Your task to perform on an android device: View the shopping cart on newegg. Add "razer naga" to the cart on newegg, then select checkout. Image 0: 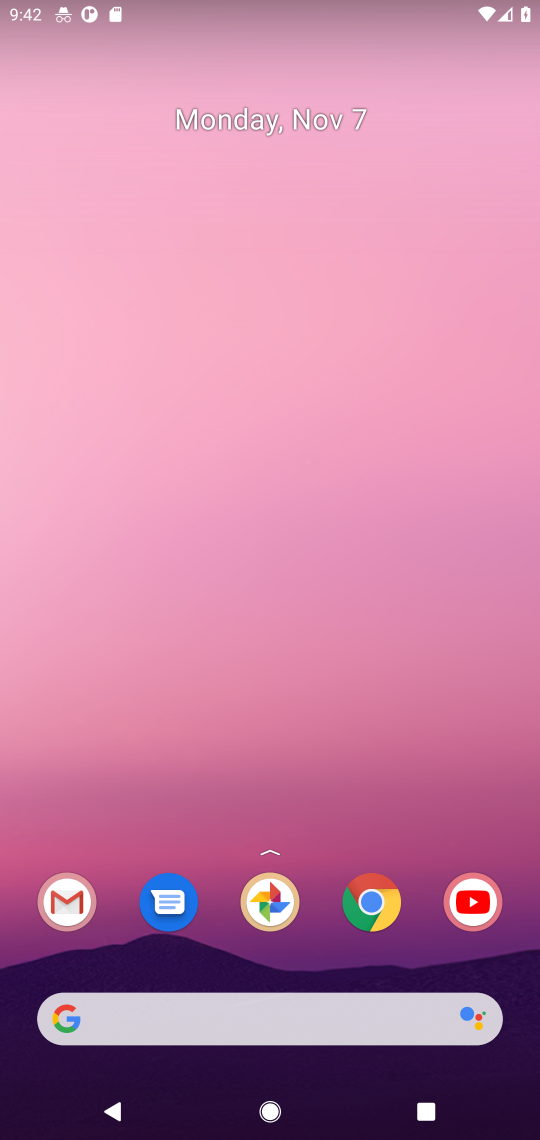
Step 0: click (369, 898)
Your task to perform on an android device: View the shopping cart on newegg. Add "razer naga" to the cart on newegg, then select checkout. Image 1: 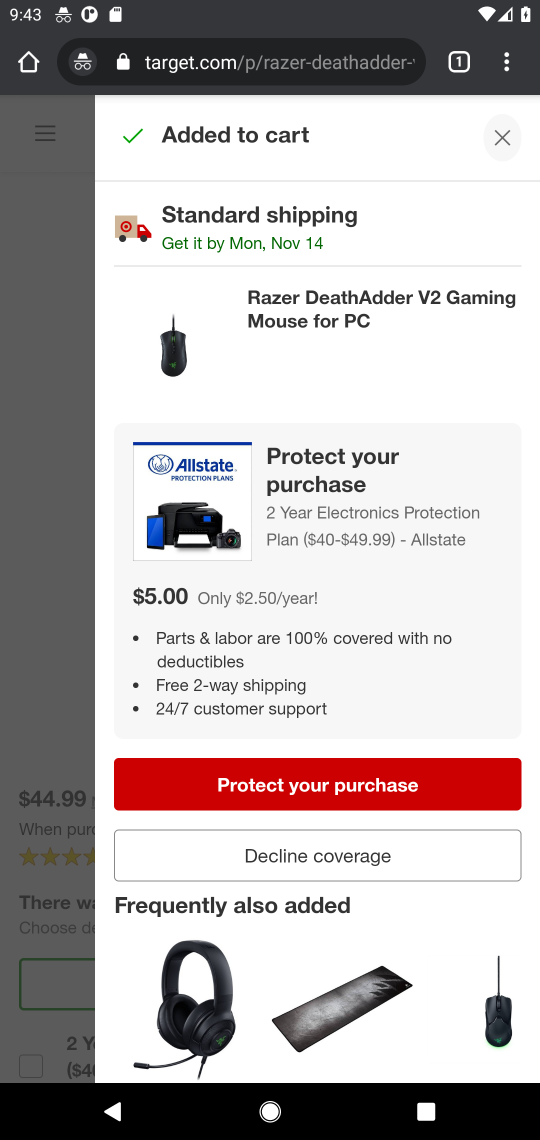
Step 1: click (226, 67)
Your task to perform on an android device: View the shopping cart on newegg. Add "razer naga" to the cart on newegg, then select checkout. Image 2: 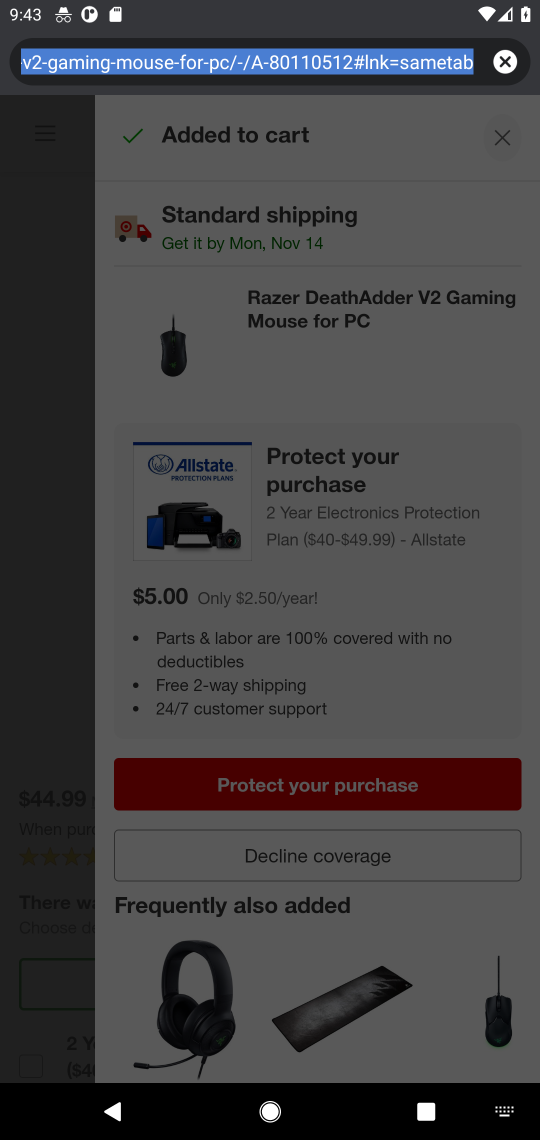
Step 2: type "newegg.com"
Your task to perform on an android device: View the shopping cart on newegg. Add "razer naga" to the cart on newegg, then select checkout. Image 3: 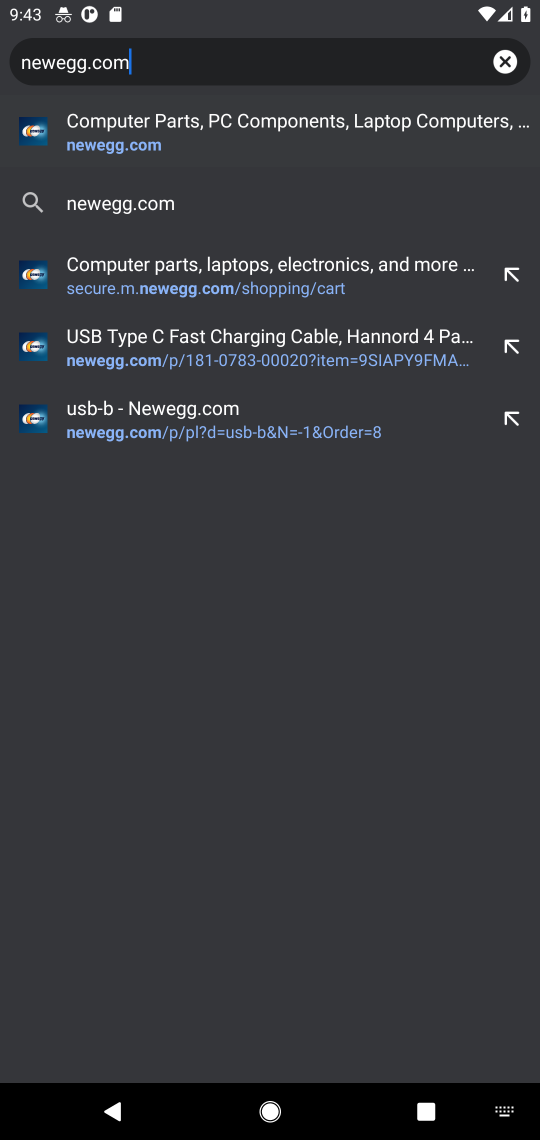
Step 3: click (130, 143)
Your task to perform on an android device: View the shopping cart on newegg. Add "razer naga" to the cart on newegg, then select checkout. Image 4: 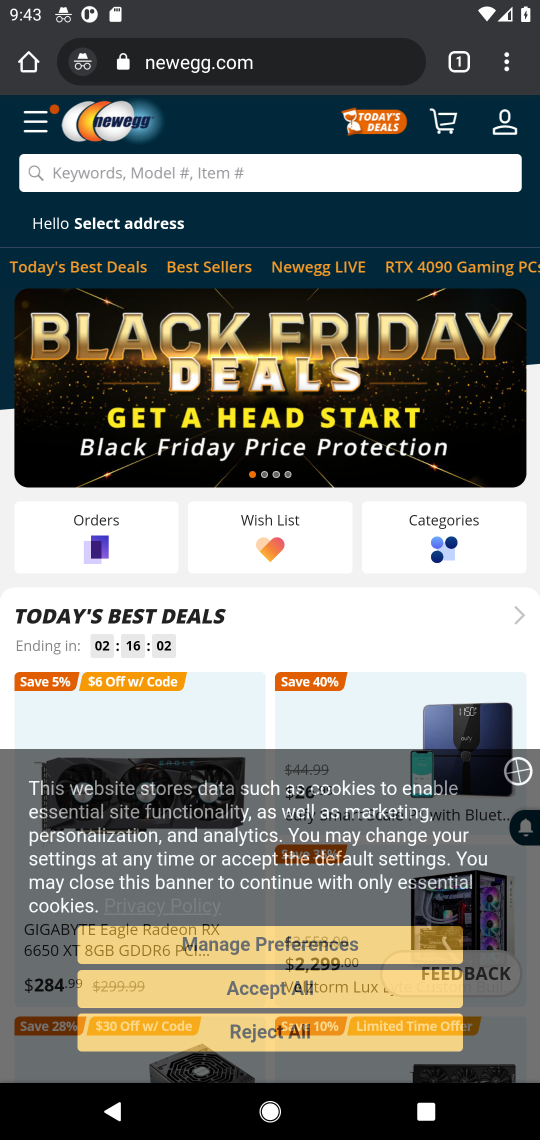
Step 4: click (443, 123)
Your task to perform on an android device: View the shopping cart on newegg. Add "razer naga" to the cart on newegg, then select checkout. Image 5: 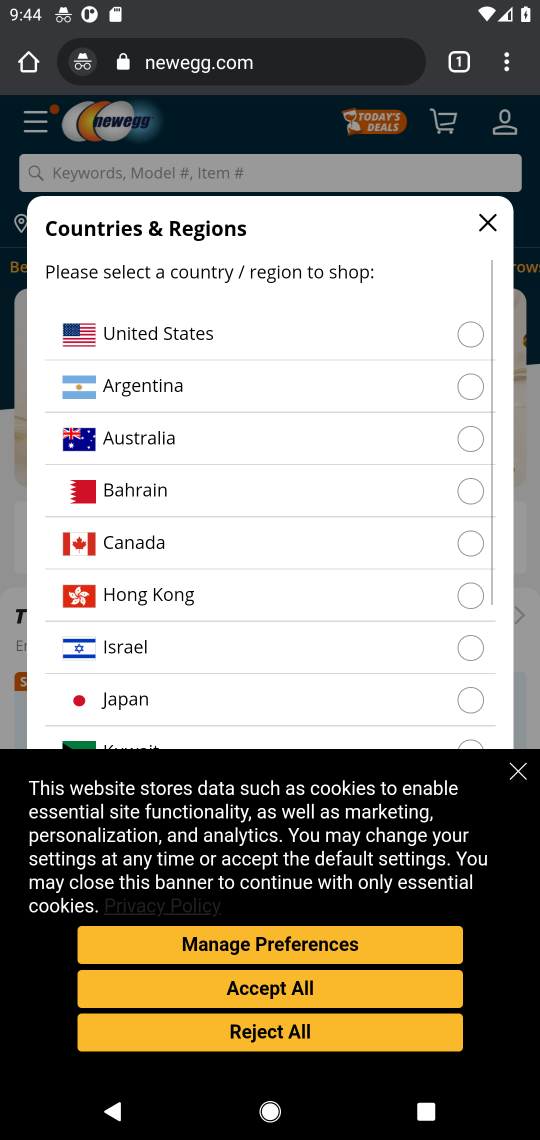
Step 5: click (216, 337)
Your task to perform on an android device: View the shopping cart on newegg. Add "razer naga" to the cart on newegg, then select checkout. Image 6: 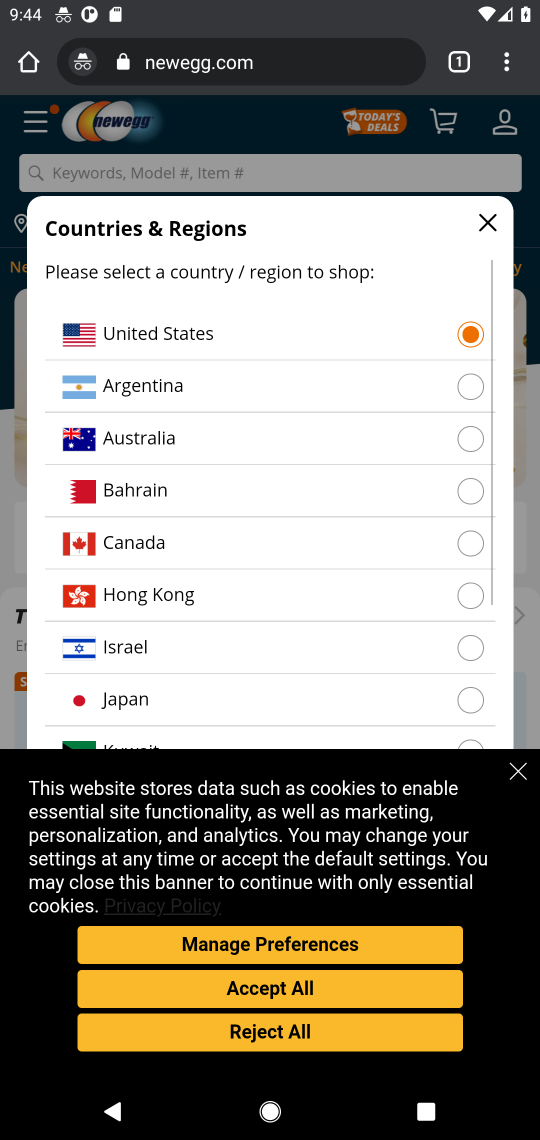
Step 6: click (487, 225)
Your task to perform on an android device: View the shopping cart on newegg. Add "razer naga" to the cart on newegg, then select checkout. Image 7: 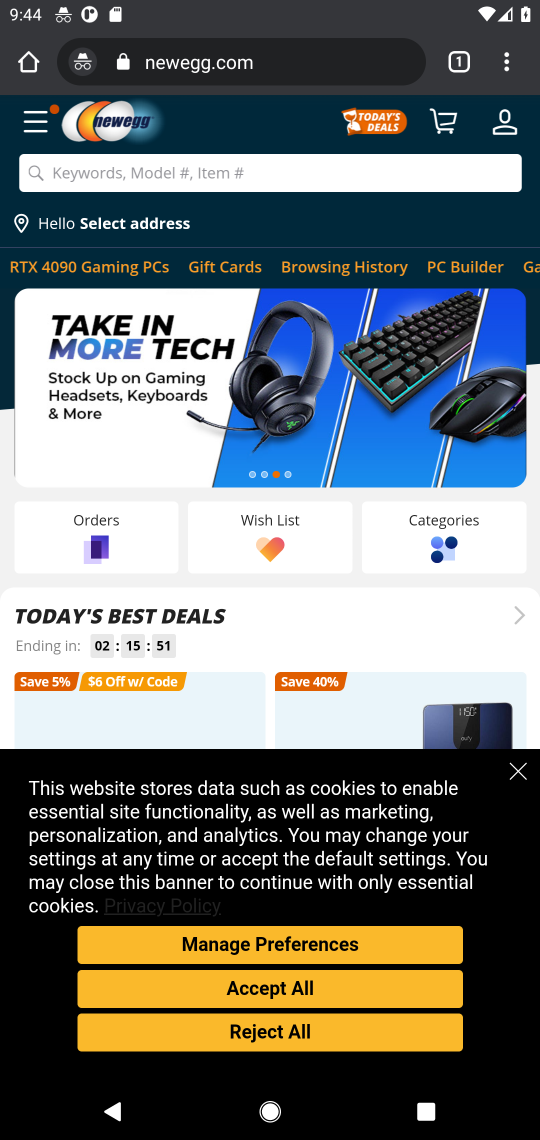
Step 7: click (450, 124)
Your task to perform on an android device: View the shopping cart on newegg. Add "razer naga" to the cart on newegg, then select checkout. Image 8: 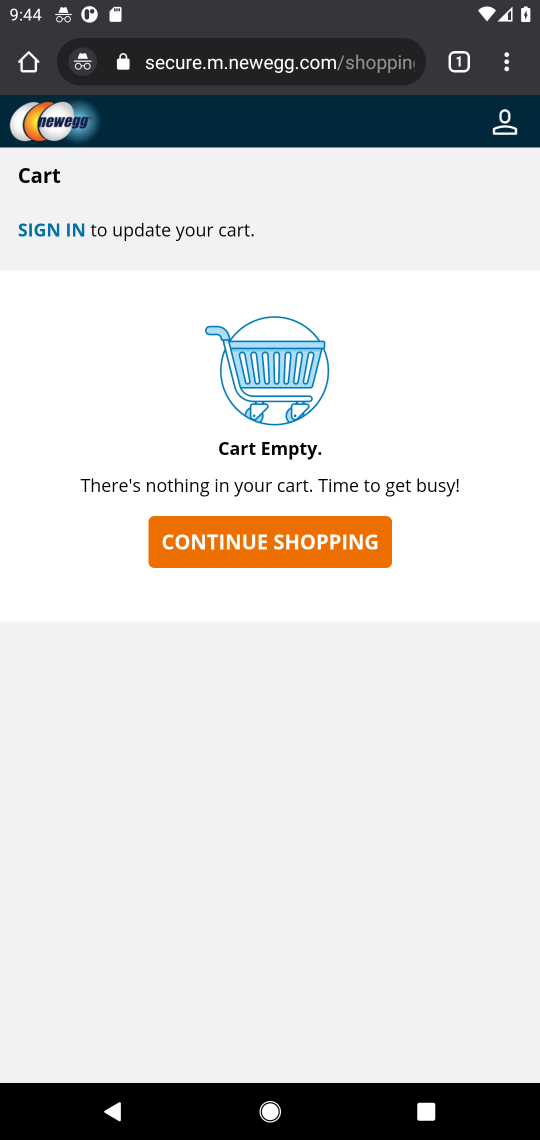
Step 8: click (242, 536)
Your task to perform on an android device: View the shopping cart on newegg. Add "razer naga" to the cart on newegg, then select checkout. Image 9: 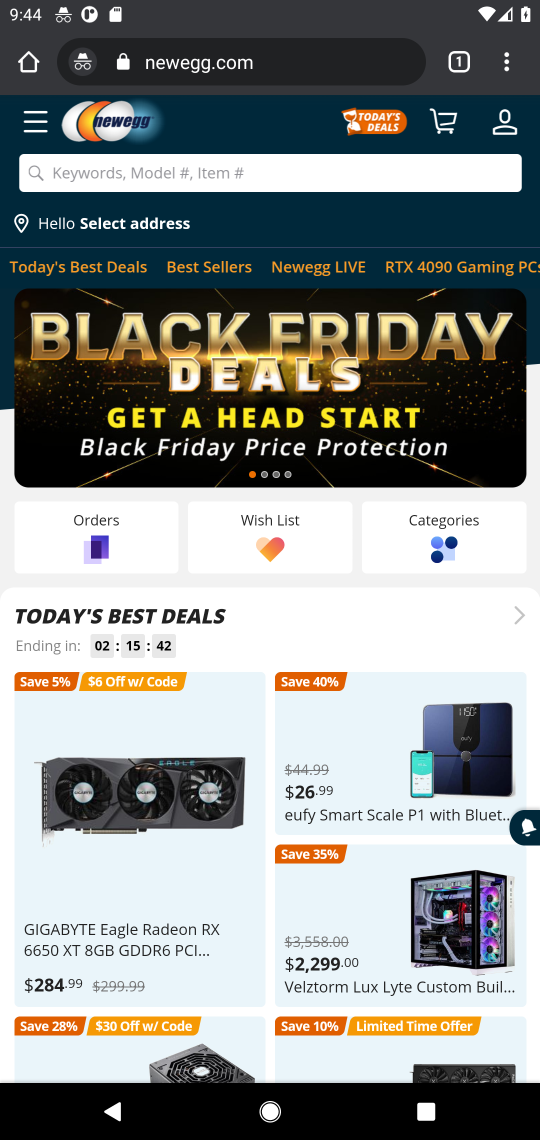
Step 9: click (209, 178)
Your task to perform on an android device: View the shopping cart on newegg. Add "razer naga" to the cart on newegg, then select checkout. Image 10: 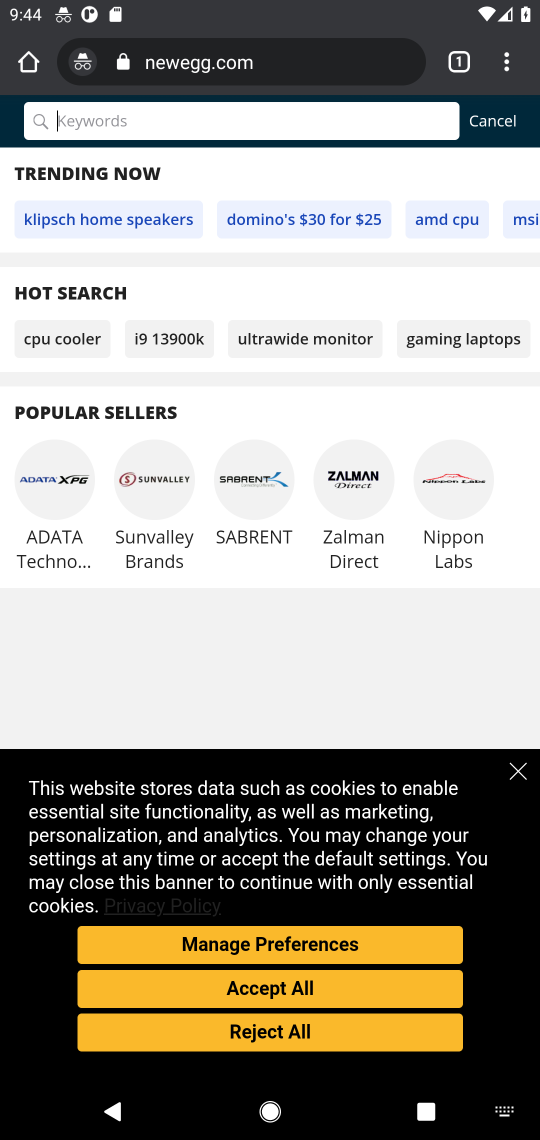
Step 10: type "razer naga"
Your task to perform on an android device: View the shopping cart on newegg. Add "razer naga" to the cart on newegg, then select checkout. Image 11: 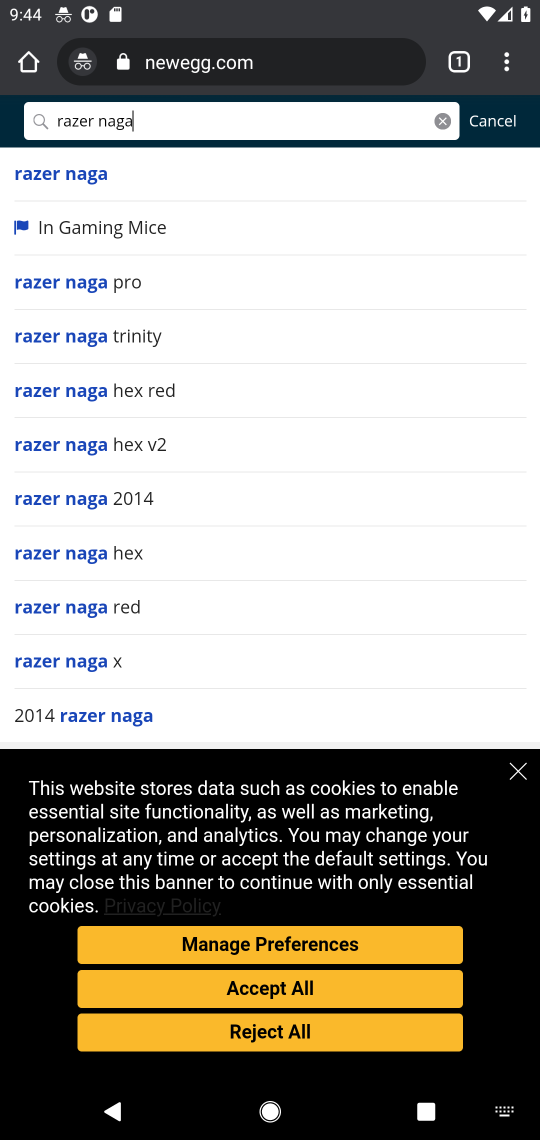
Step 11: click (49, 179)
Your task to perform on an android device: View the shopping cart on newegg. Add "razer naga" to the cart on newegg, then select checkout. Image 12: 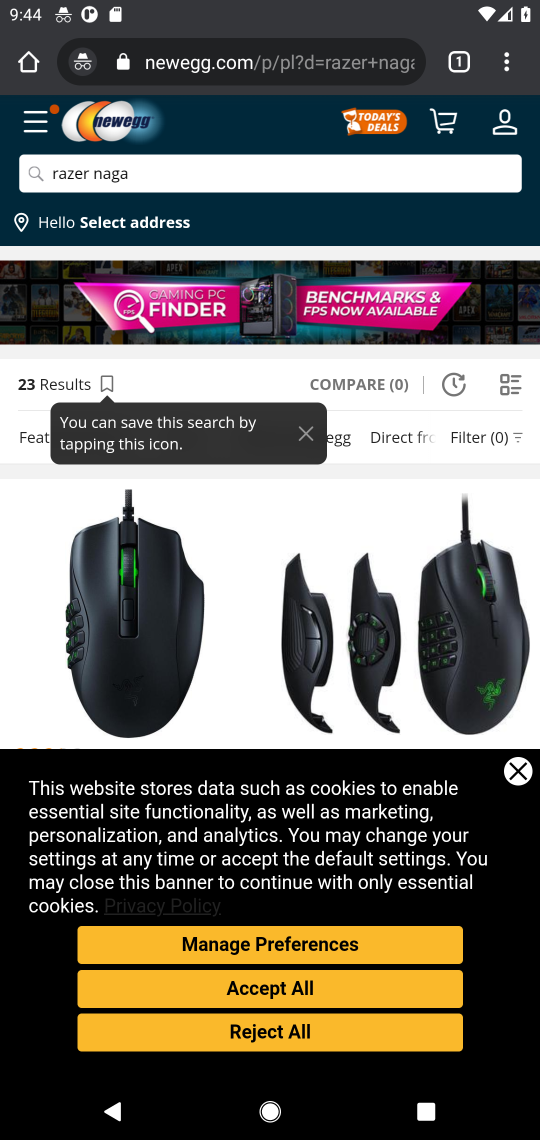
Step 12: click (513, 769)
Your task to perform on an android device: View the shopping cart on newegg. Add "razer naga" to the cart on newegg, then select checkout. Image 13: 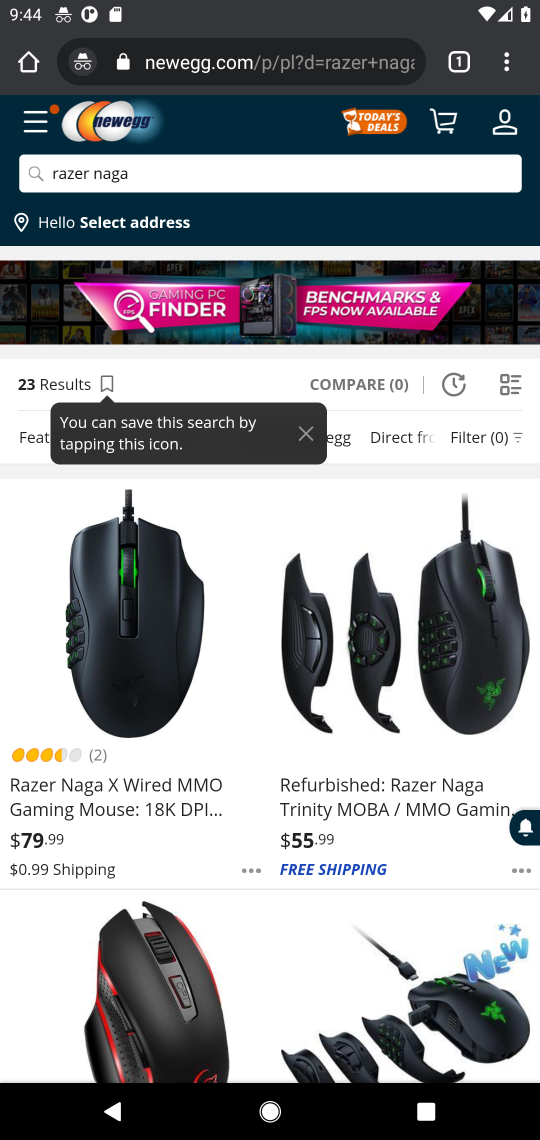
Step 13: click (138, 645)
Your task to perform on an android device: View the shopping cart on newegg. Add "razer naga" to the cart on newegg, then select checkout. Image 14: 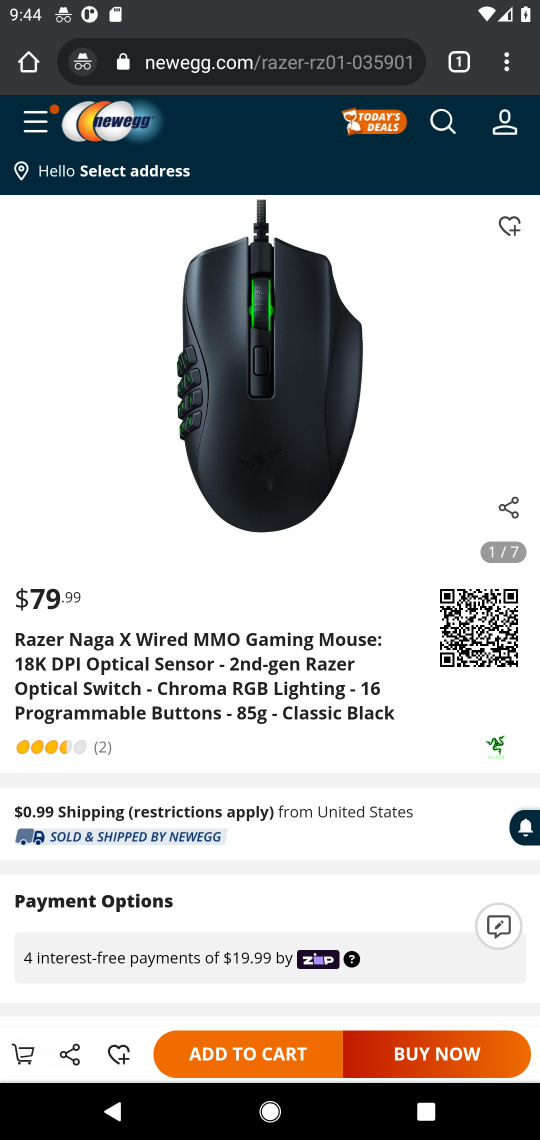
Step 14: click (224, 1053)
Your task to perform on an android device: View the shopping cart on newegg. Add "razer naga" to the cart on newegg, then select checkout. Image 15: 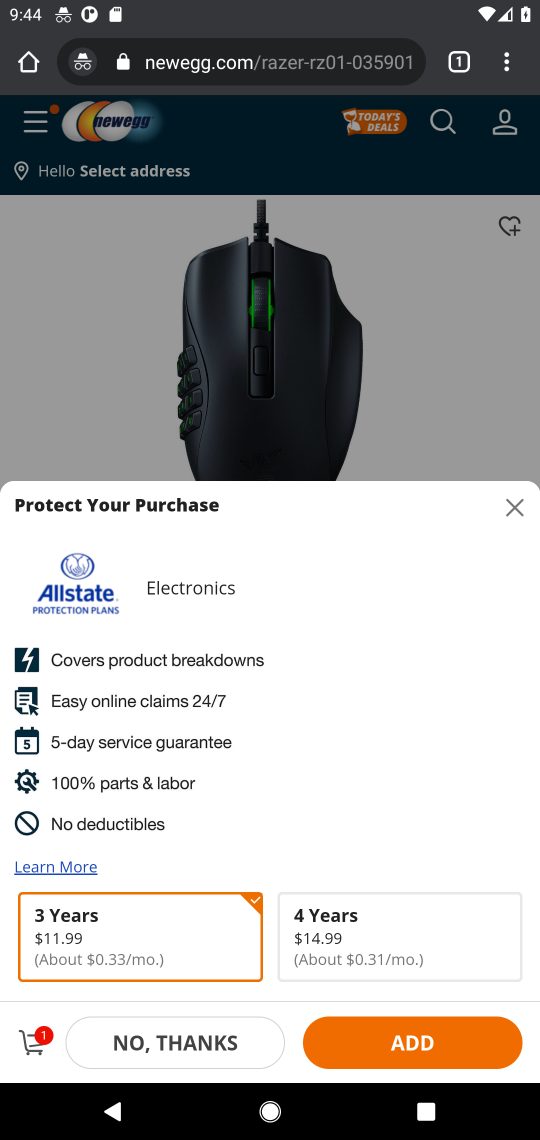
Step 15: click (33, 1046)
Your task to perform on an android device: View the shopping cart on newegg. Add "razer naga" to the cart on newegg, then select checkout. Image 16: 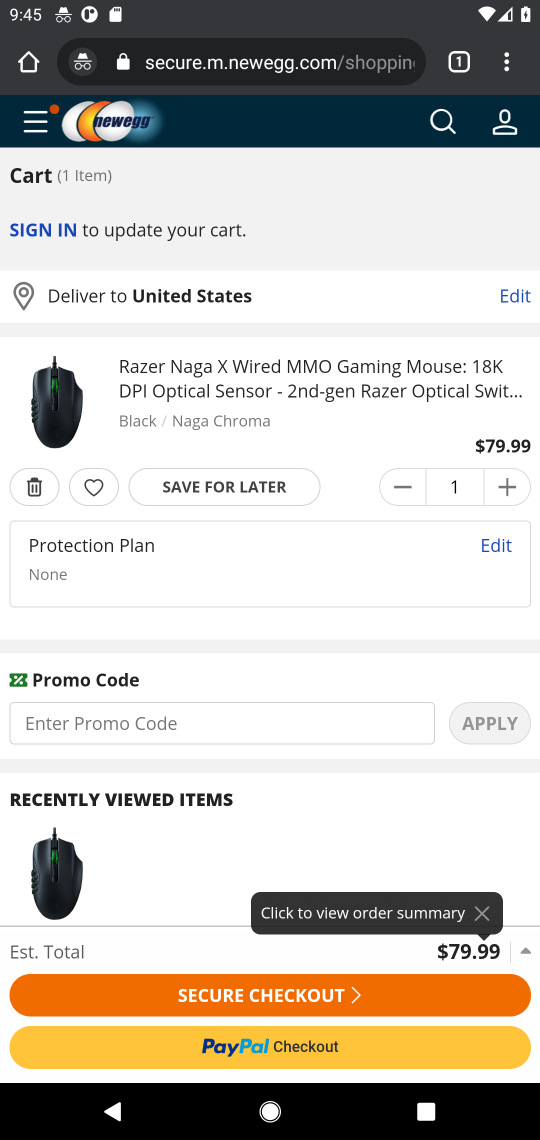
Step 16: click (225, 1001)
Your task to perform on an android device: View the shopping cart on newegg. Add "razer naga" to the cart on newegg, then select checkout. Image 17: 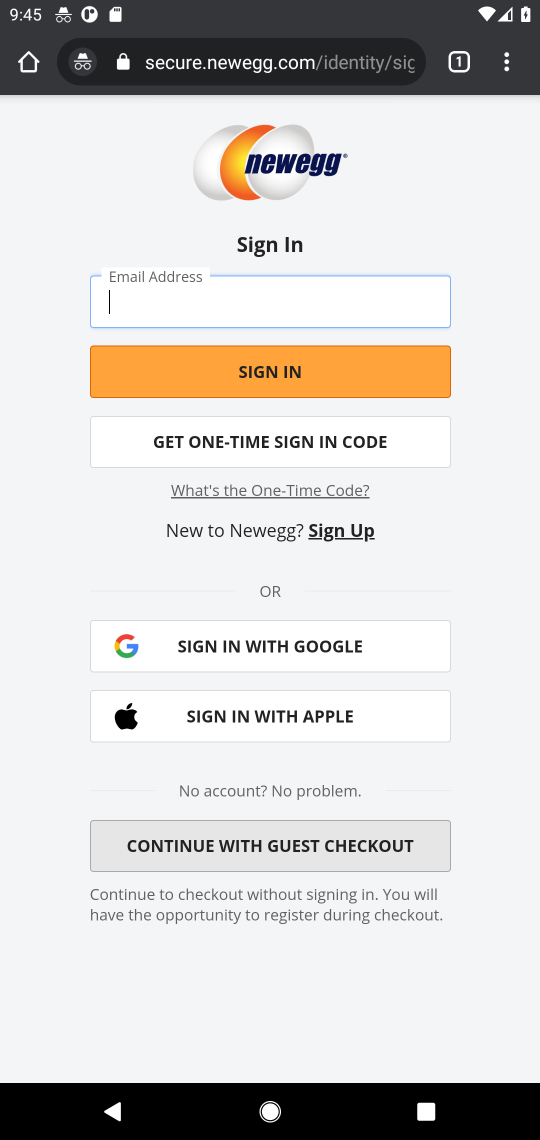
Step 17: task complete